Your task to perform on an android device: Check the settings for the Google Play Books app Image 0: 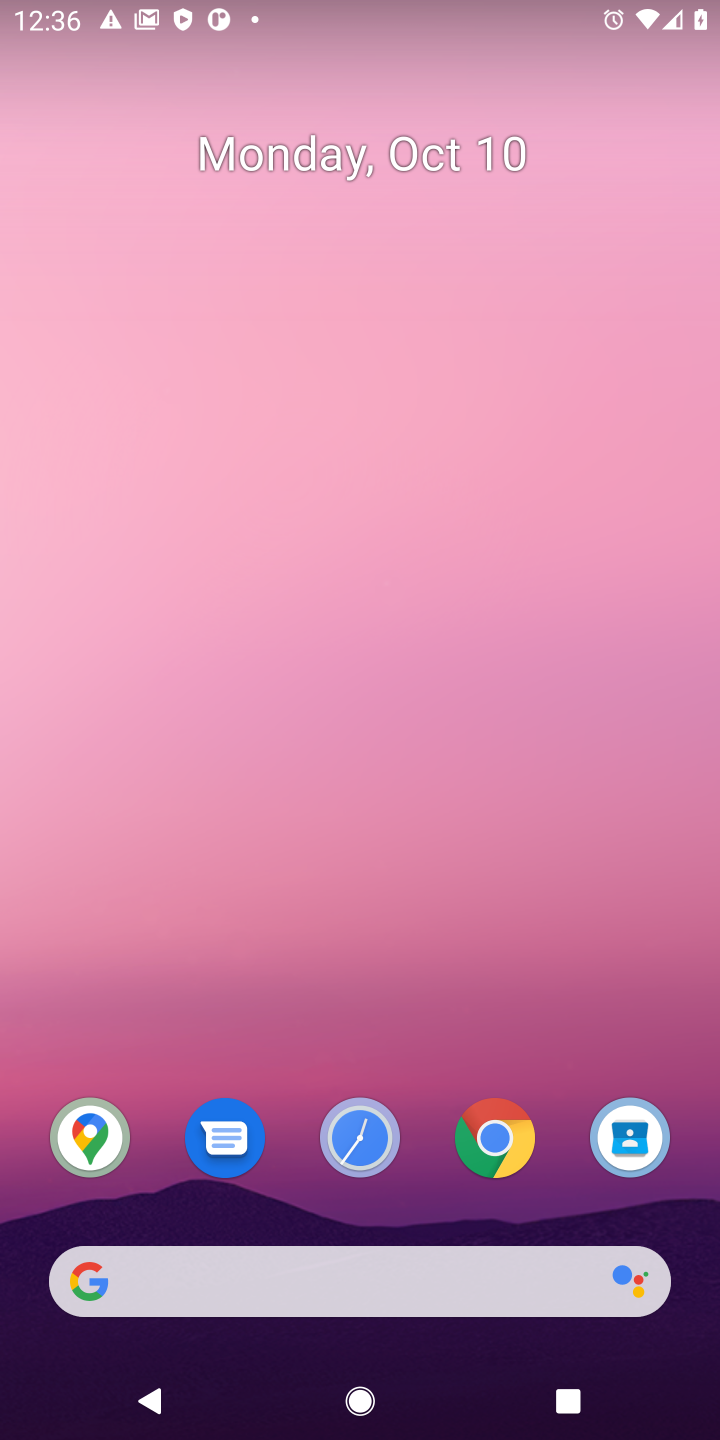
Step 0: drag from (324, 858) to (211, 127)
Your task to perform on an android device: Check the settings for the Google Play Books app Image 1: 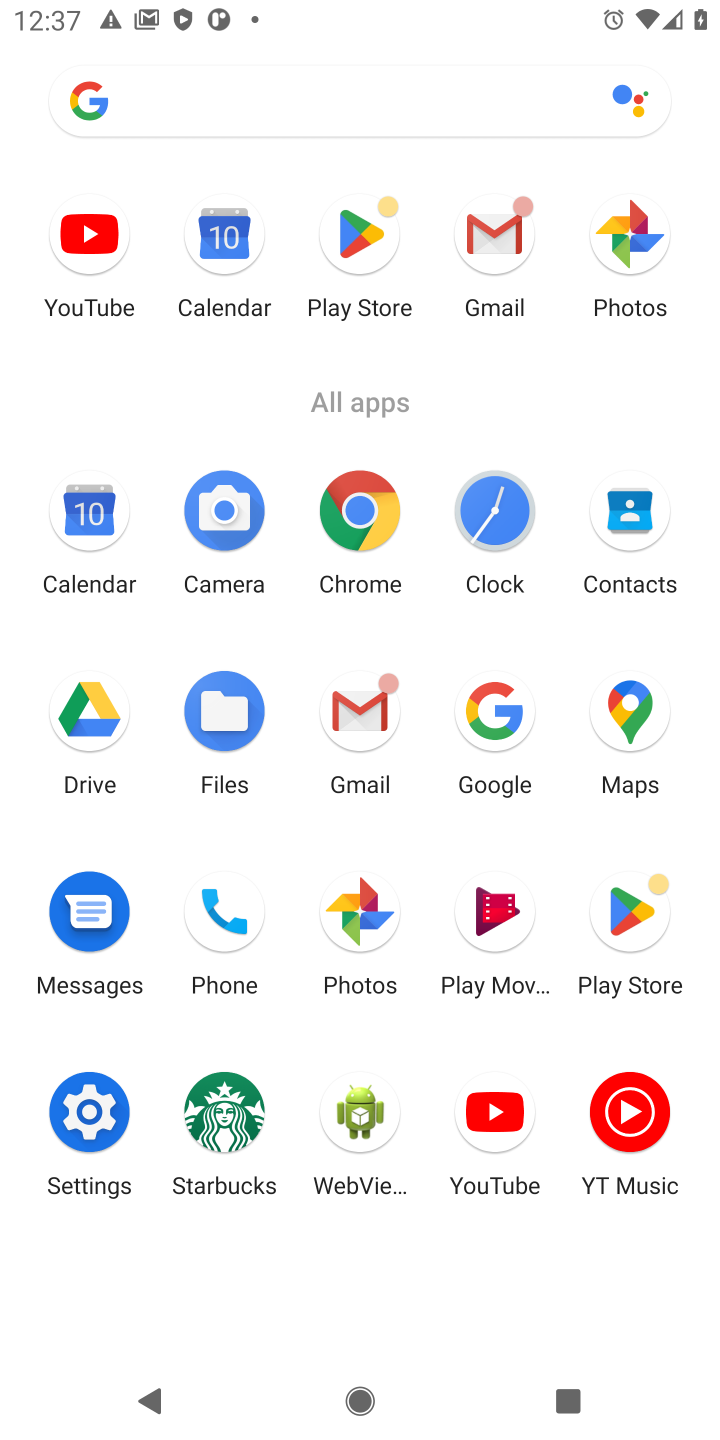
Step 1: task complete